Your task to perform on an android device: add a label to a message in the gmail app Image 0: 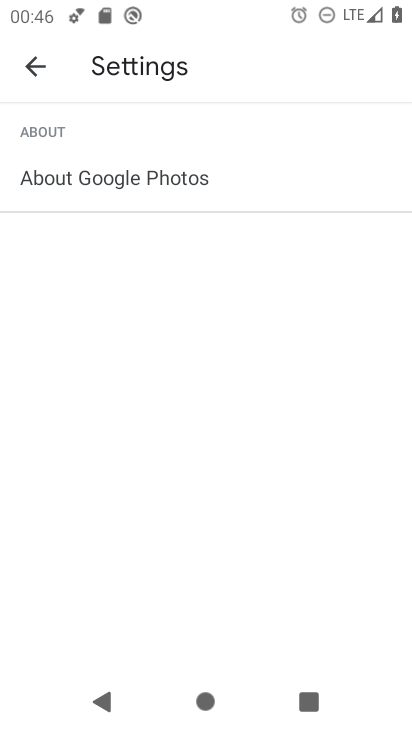
Step 0: press home button
Your task to perform on an android device: add a label to a message in the gmail app Image 1: 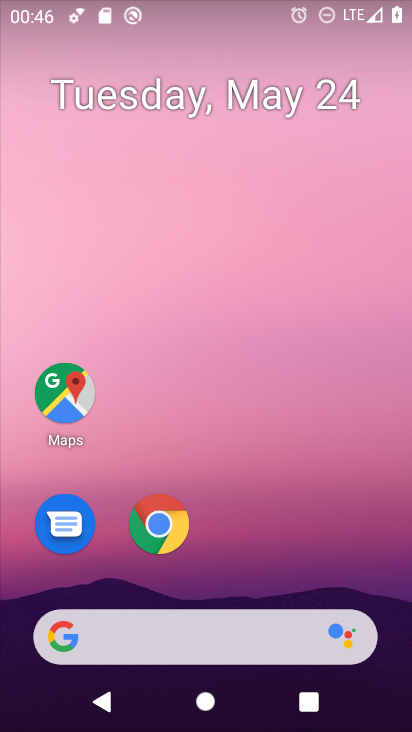
Step 1: drag from (211, 556) to (228, 178)
Your task to perform on an android device: add a label to a message in the gmail app Image 2: 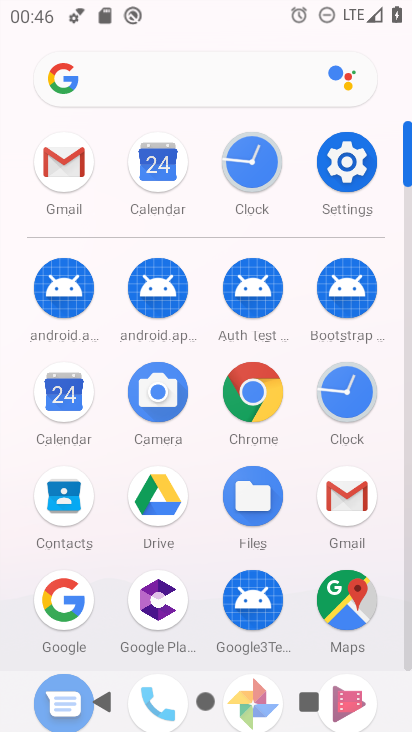
Step 2: click (339, 493)
Your task to perform on an android device: add a label to a message in the gmail app Image 3: 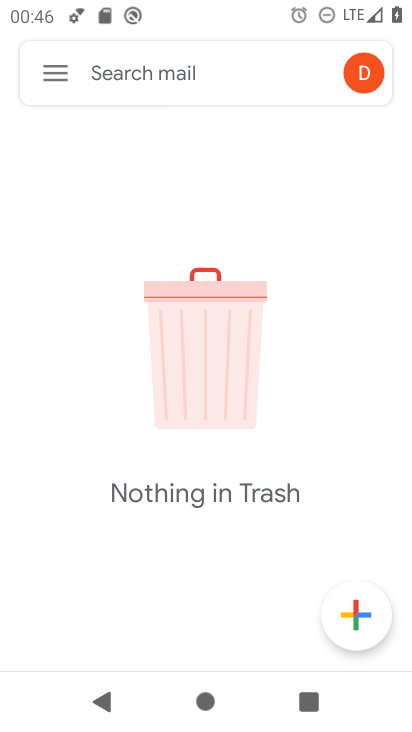
Step 3: click (54, 83)
Your task to perform on an android device: add a label to a message in the gmail app Image 4: 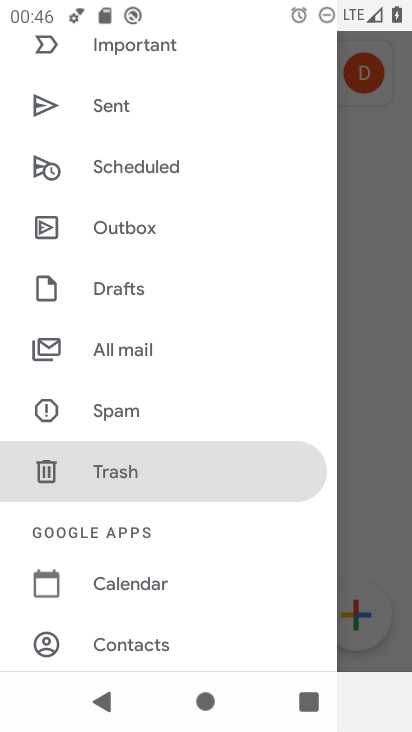
Step 4: click (146, 353)
Your task to perform on an android device: add a label to a message in the gmail app Image 5: 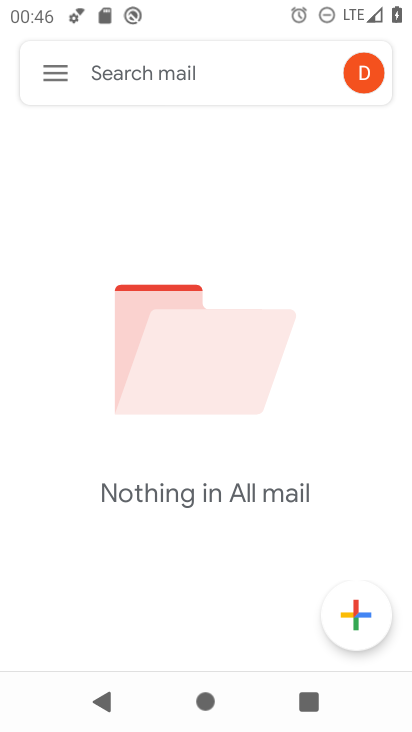
Step 5: task complete